Your task to perform on an android device: Go to internet settings Image 0: 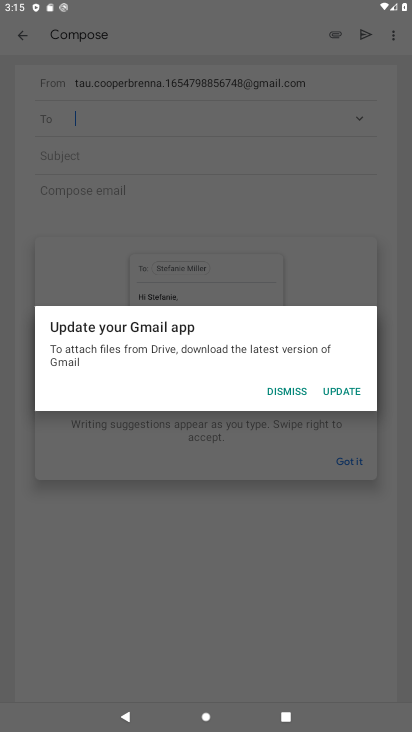
Step 0: press home button
Your task to perform on an android device: Go to internet settings Image 1: 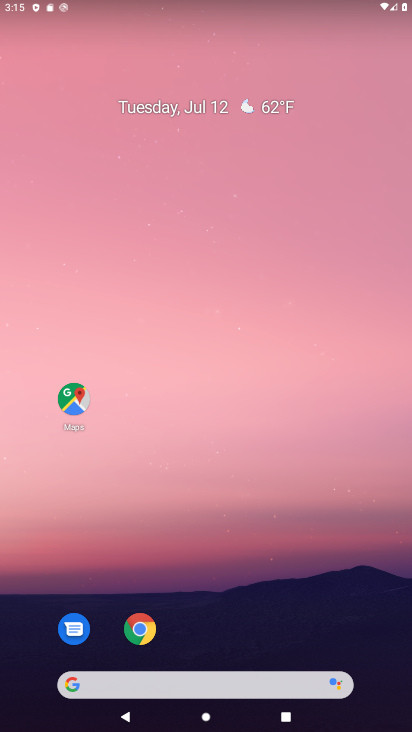
Step 1: drag from (201, 645) to (149, 80)
Your task to perform on an android device: Go to internet settings Image 2: 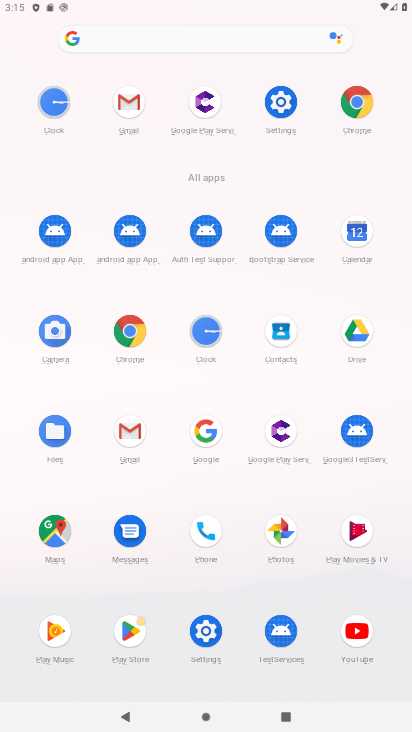
Step 2: click (277, 97)
Your task to perform on an android device: Go to internet settings Image 3: 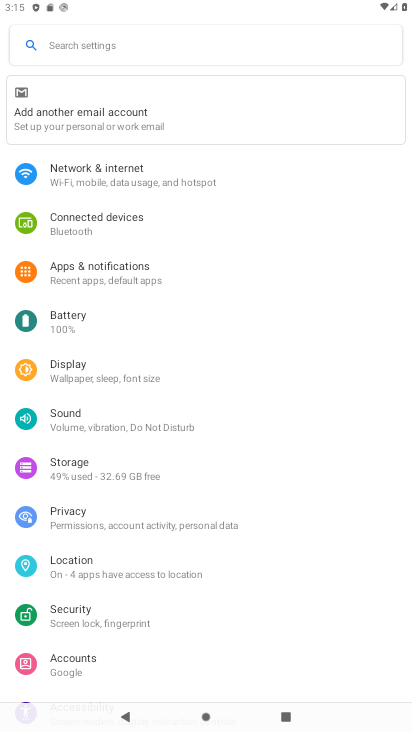
Step 3: click (108, 193)
Your task to perform on an android device: Go to internet settings Image 4: 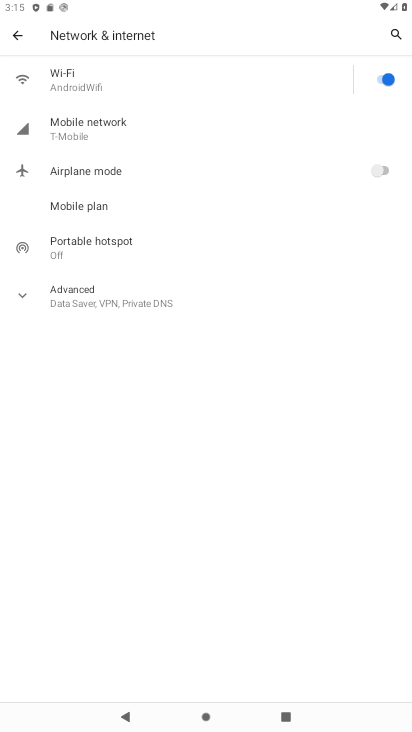
Step 4: click (39, 126)
Your task to perform on an android device: Go to internet settings Image 5: 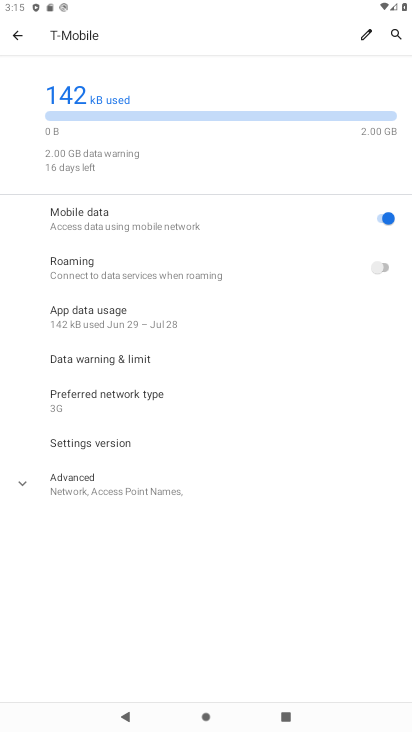
Step 5: task complete